Your task to perform on an android device: When is my next meeting? Image 0: 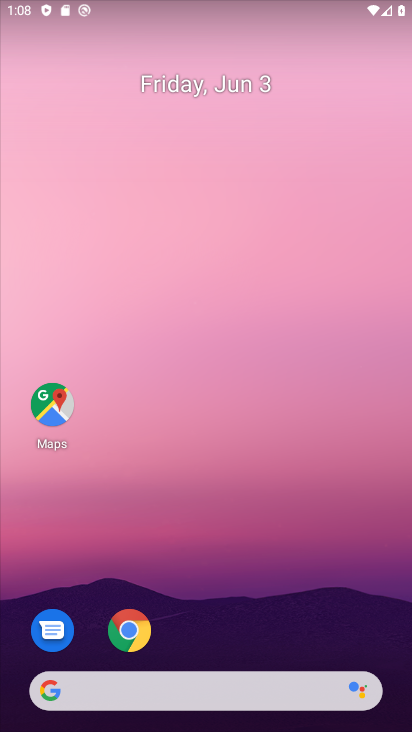
Step 0: drag from (184, 699) to (141, 120)
Your task to perform on an android device: When is my next meeting? Image 1: 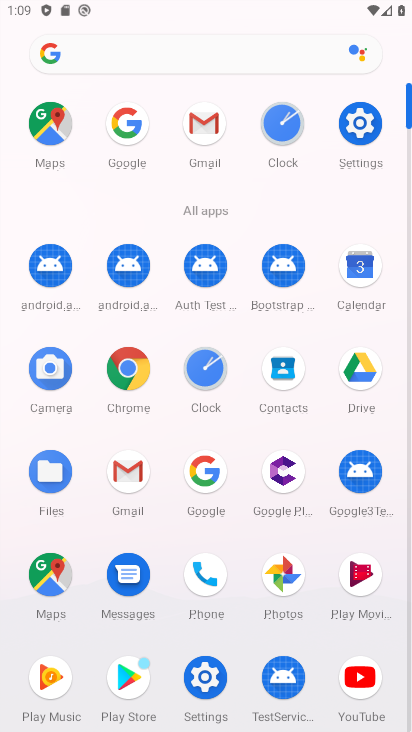
Step 1: click (367, 269)
Your task to perform on an android device: When is my next meeting? Image 2: 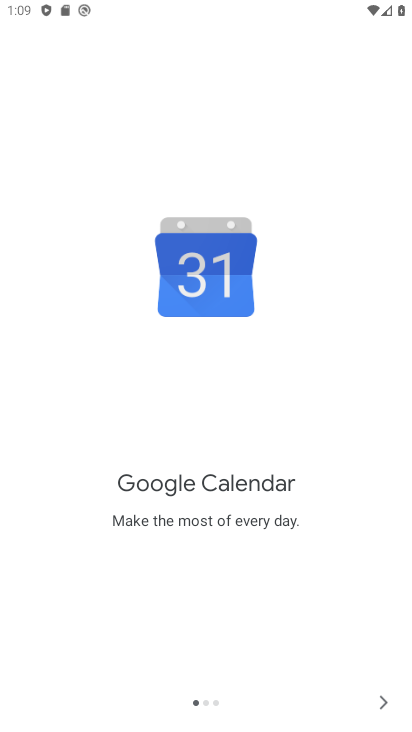
Step 2: click (383, 699)
Your task to perform on an android device: When is my next meeting? Image 3: 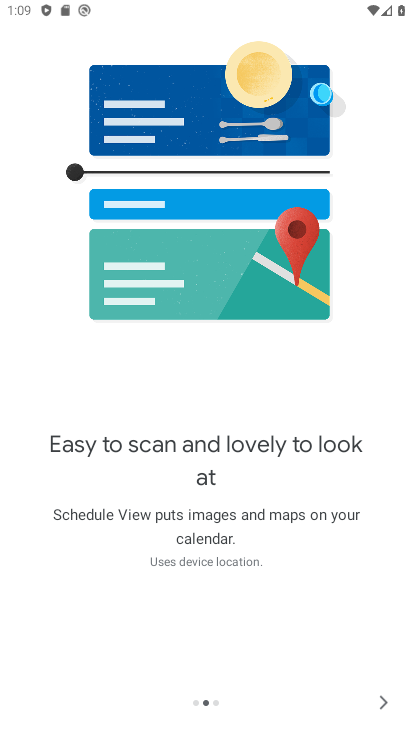
Step 3: click (383, 699)
Your task to perform on an android device: When is my next meeting? Image 4: 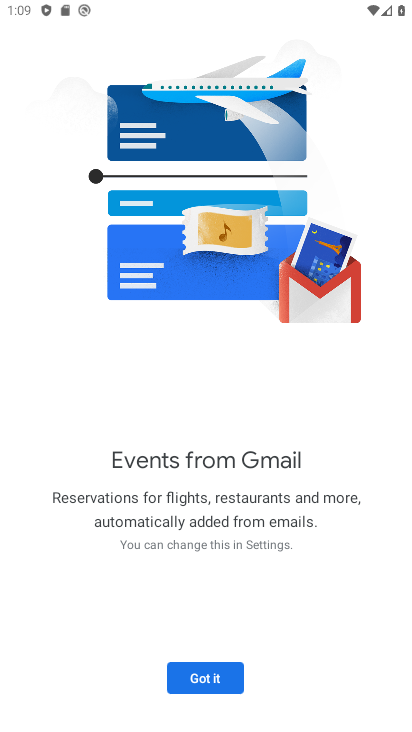
Step 4: click (203, 678)
Your task to perform on an android device: When is my next meeting? Image 5: 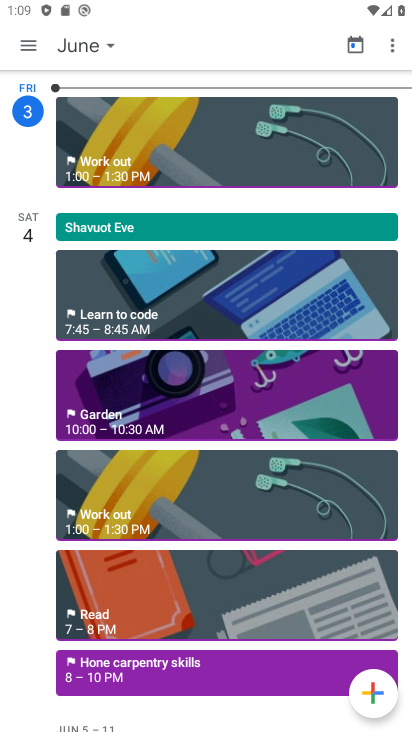
Step 5: click (104, 43)
Your task to perform on an android device: When is my next meeting? Image 6: 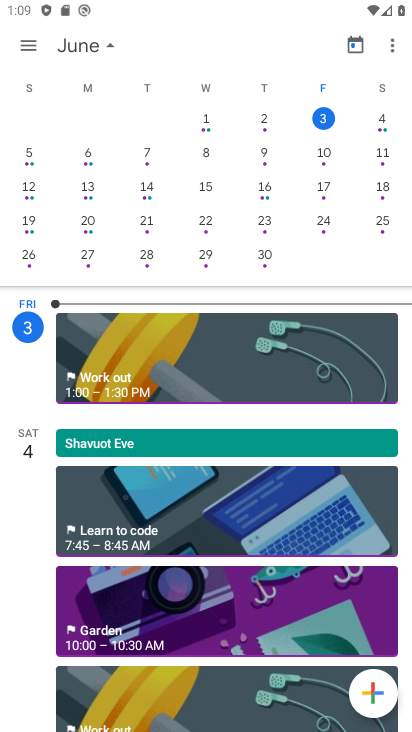
Step 6: click (388, 113)
Your task to perform on an android device: When is my next meeting? Image 7: 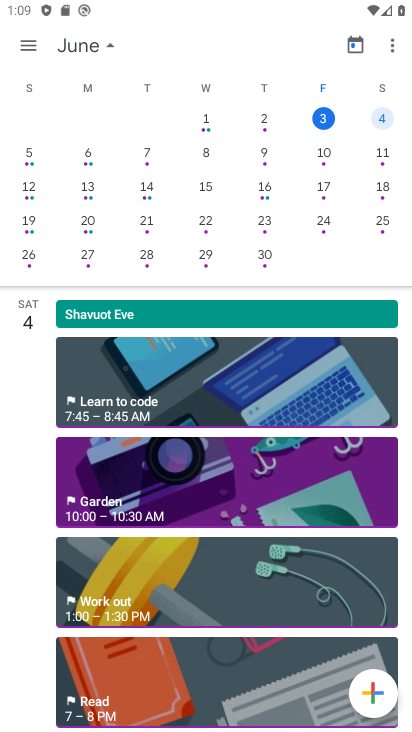
Step 7: click (388, 113)
Your task to perform on an android device: When is my next meeting? Image 8: 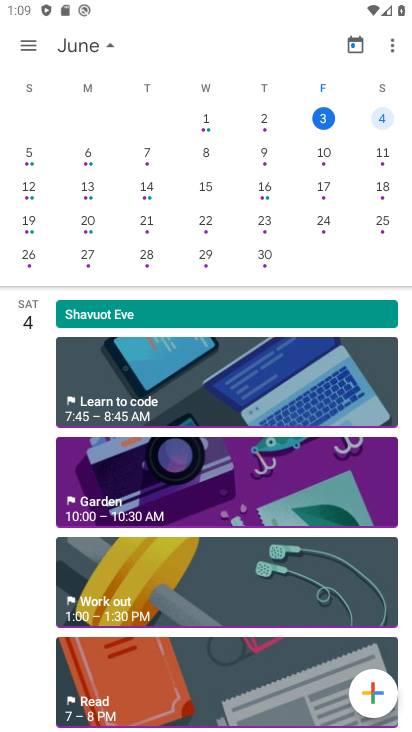
Step 8: click (115, 37)
Your task to perform on an android device: When is my next meeting? Image 9: 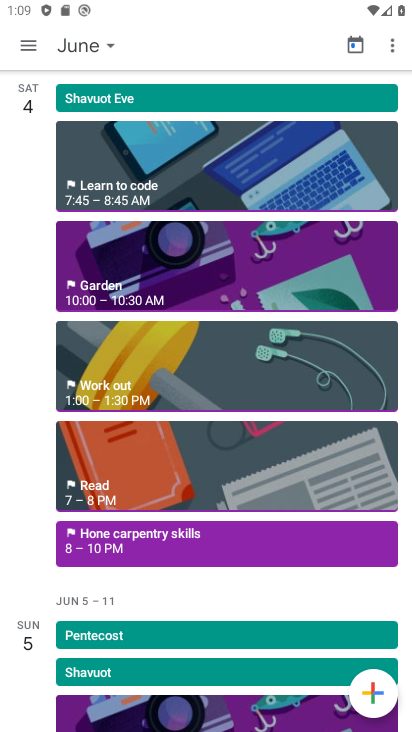
Step 9: task complete